Your task to perform on an android device: Go to battery settings Image 0: 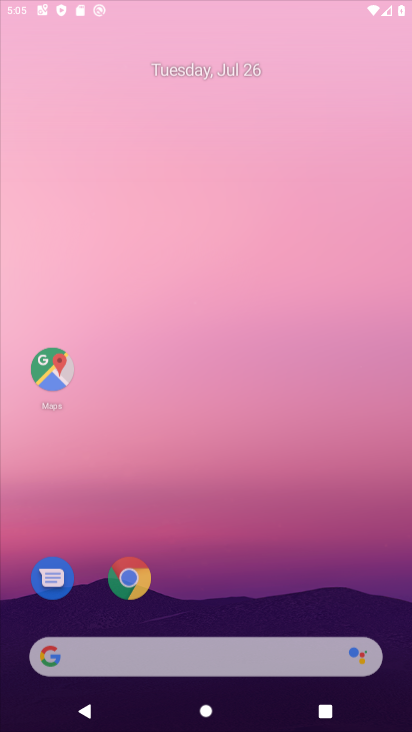
Step 0: press home button
Your task to perform on an android device: Go to battery settings Image 1: 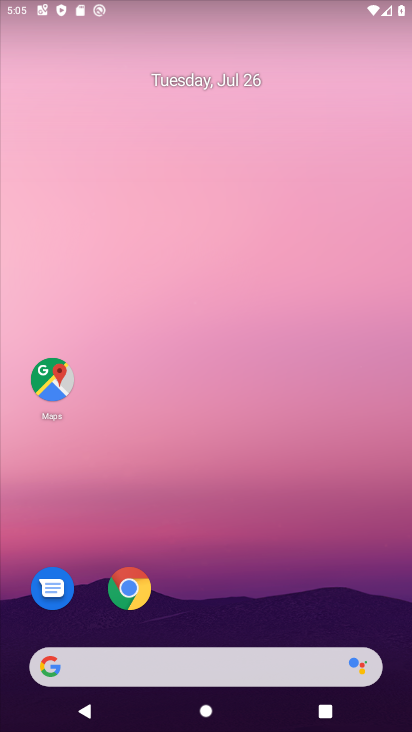
Step 1: drag from (209, 655) to (274, 200)
Your task to perform on an android device: Go to battery settings Image 2: 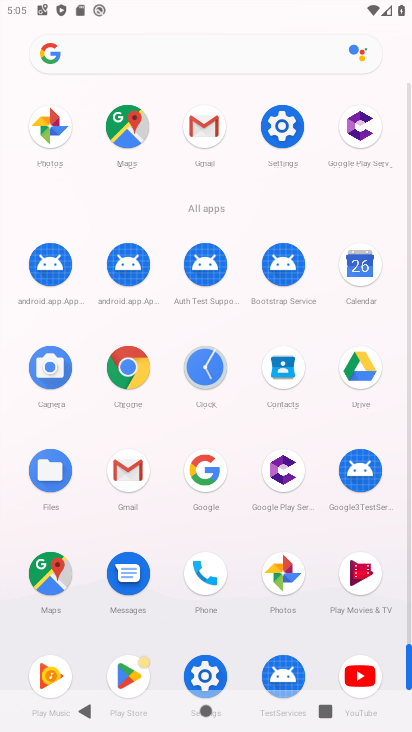
Step 2: click (291, 138)
Your task to perform on an android device: Go to battery settings Image 3: 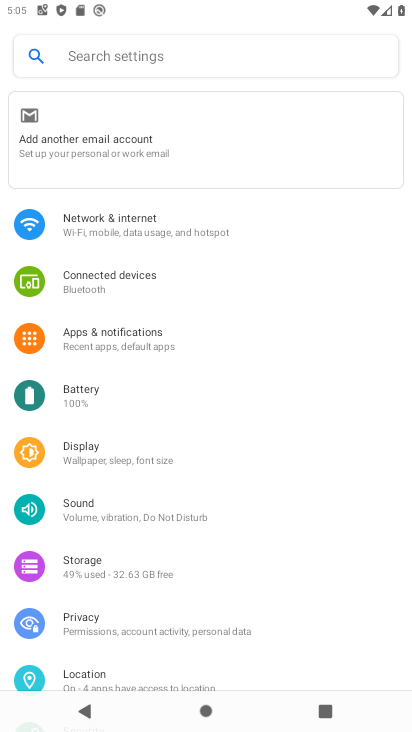
Step 3: click (118, 392)
Your task to perform on an android device: Go to battery settings Image 4: 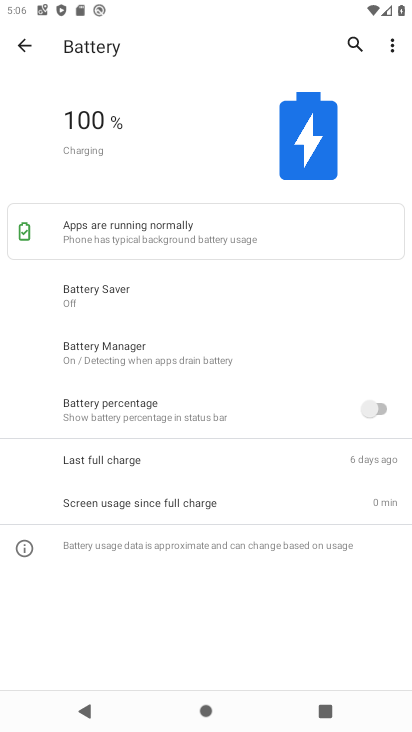
Step 4: task complete